Your task to perform on an android device: Open the stopwatch Image 0: 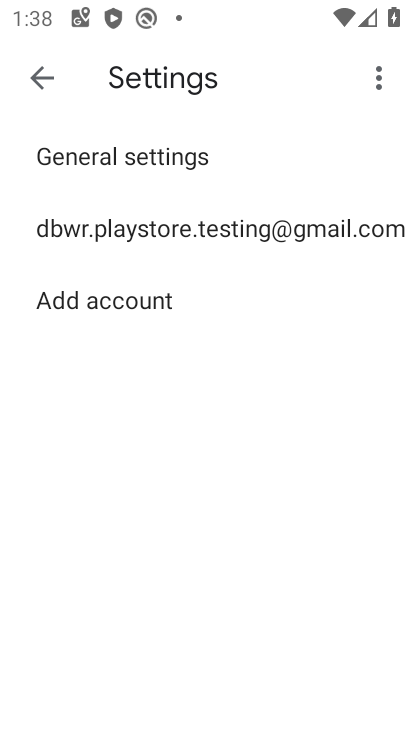
Step 0: press home button
Your task to perform on an android device: Open the stopwatch Image 1: 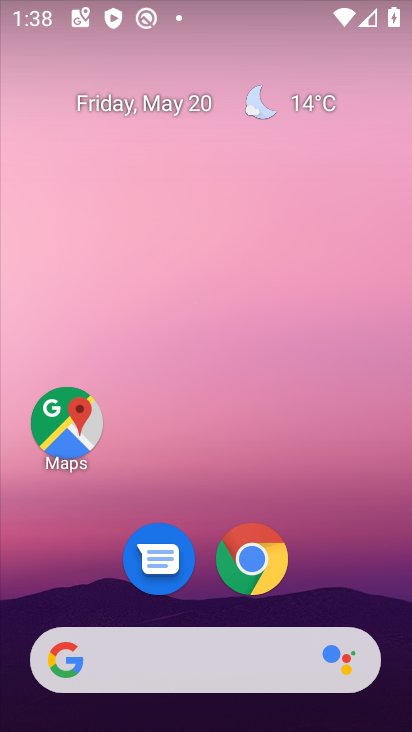
Step 1: drag from (370, 578) to (335, 488)
Your task to perform on an android device: Open the stopwatch Image 2: 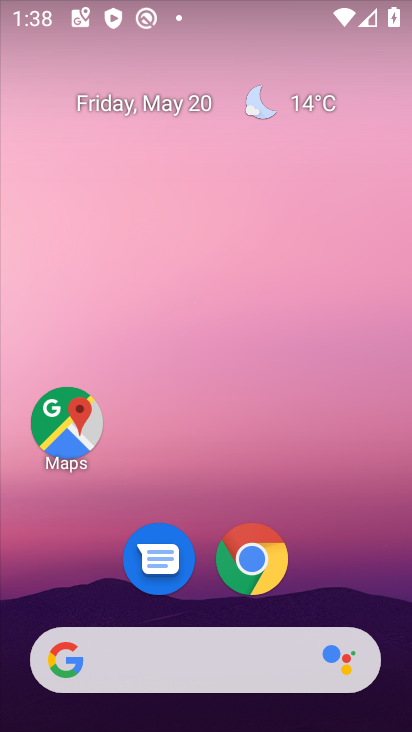
Step 2: drag from (344, 573) to (314, 44)
Your task to perform on an android device: Open the stopwatch Image 3: 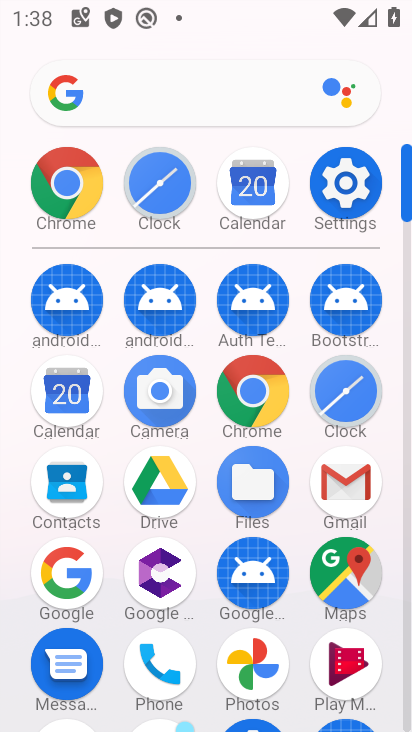
Step 3: click (143, 213)
Your task to perform on an android device: Open the stopwatch Image 4: 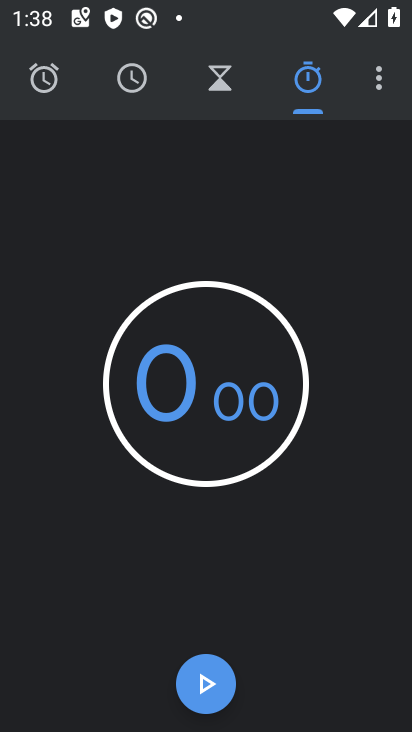
Step 4: task complete